Your task to perform on an android device: find which apps use the phone's location Image 0: 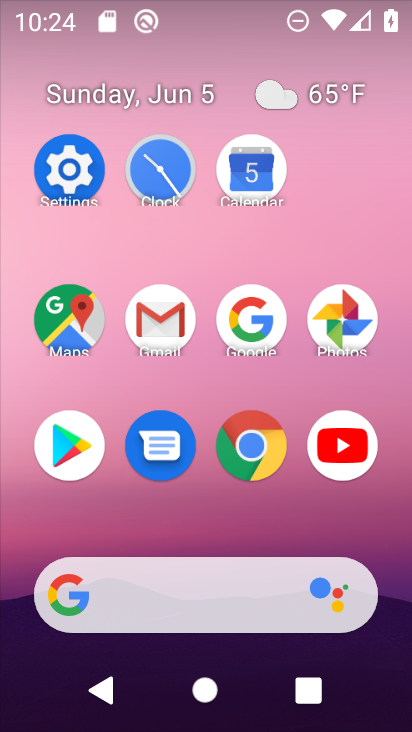
Step 0: click (62, 159)
Your task to perform on an android device: find which apps use the phone's location Image 1: 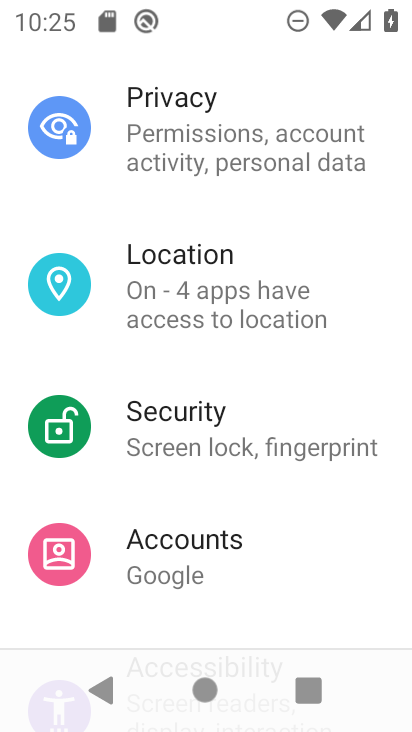
Step 1: click (249, 301)
Your task to perform on an android device: find which apps use the phone's location Image 2: 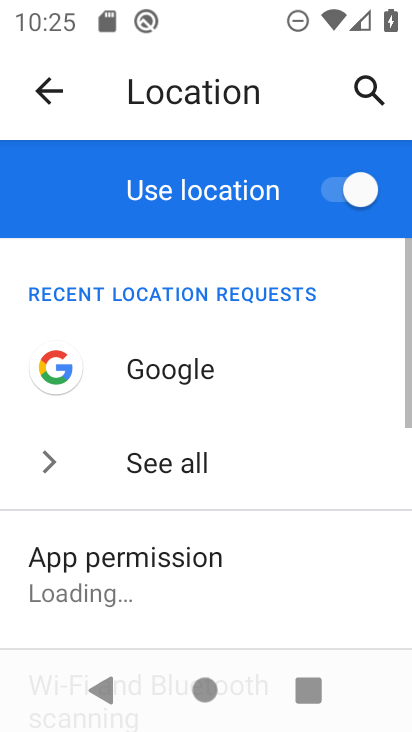
Step 2: task complete